Your task to perform on an android device: Go to network settings Image 0: 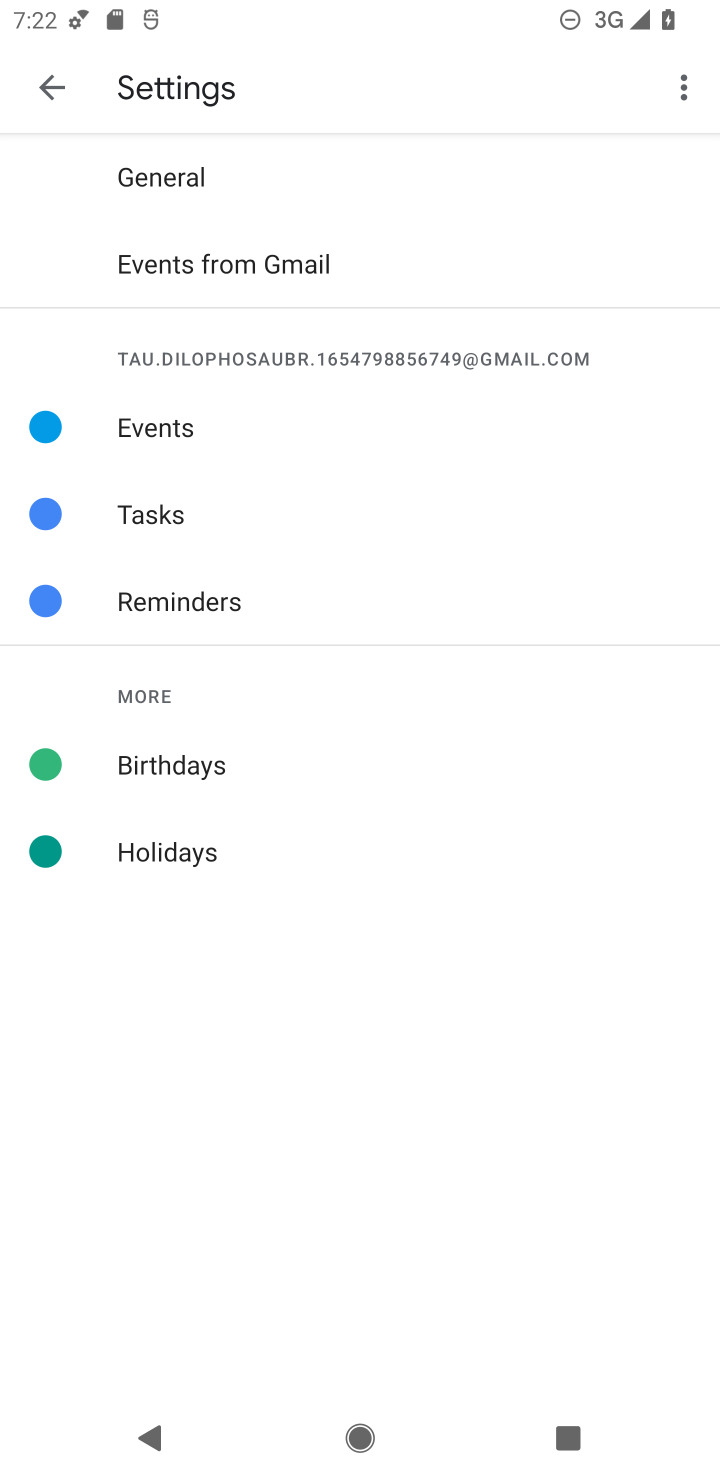
Step 0: press home button
Your task to perform on an android device: Go to network settings Image 1: 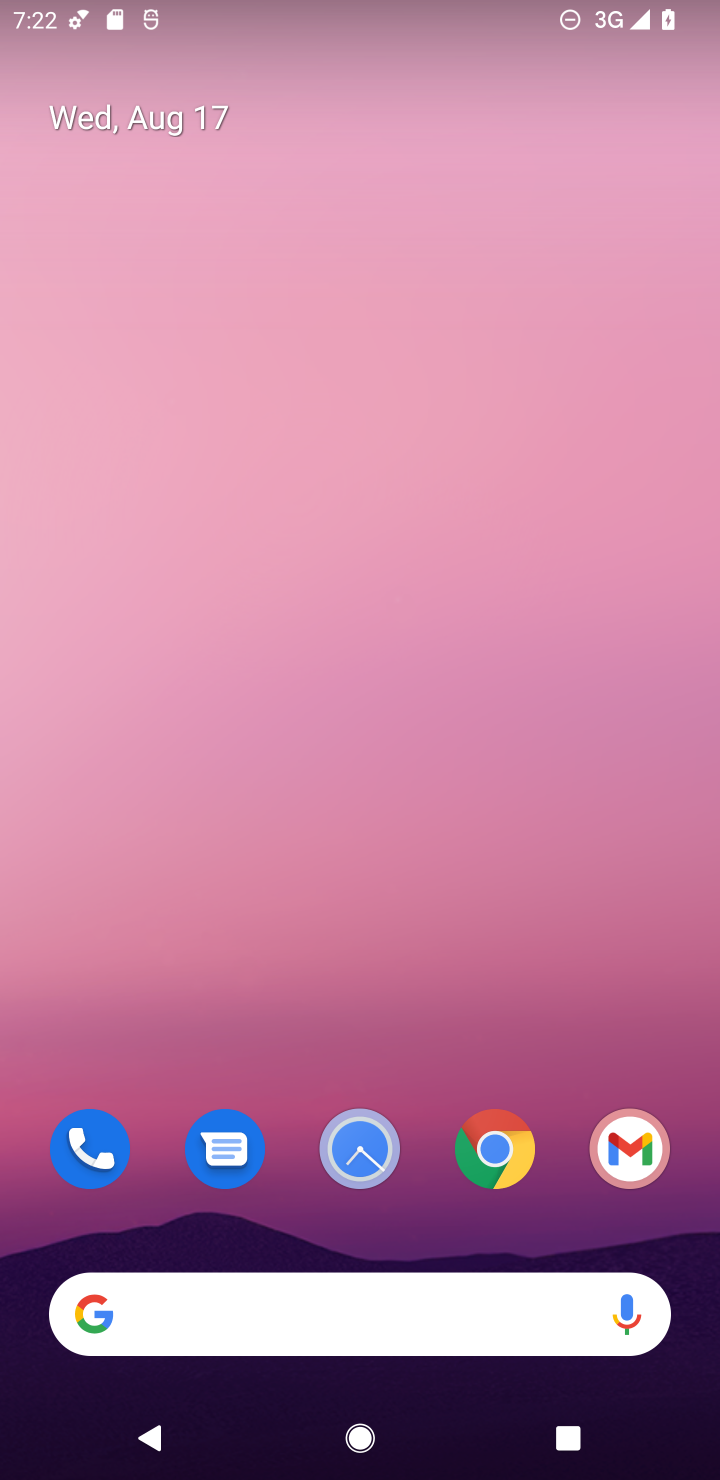
Step 1: drag from (386, 1075) to (364, 174)
Your task to perform on an android device: Go to network settings Image 2: 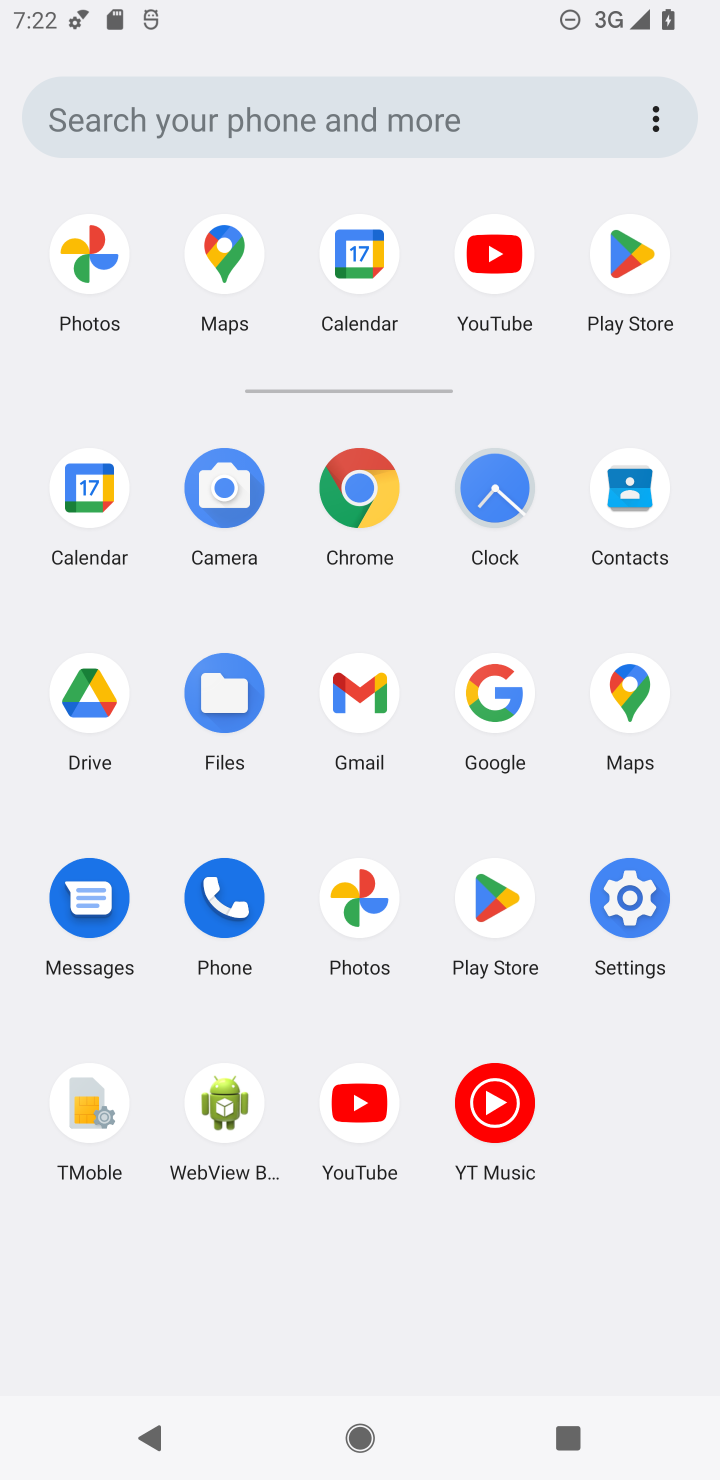
Step 2: click (631, 902)
Your task to perform on an android device: Go to network settings Image 3: 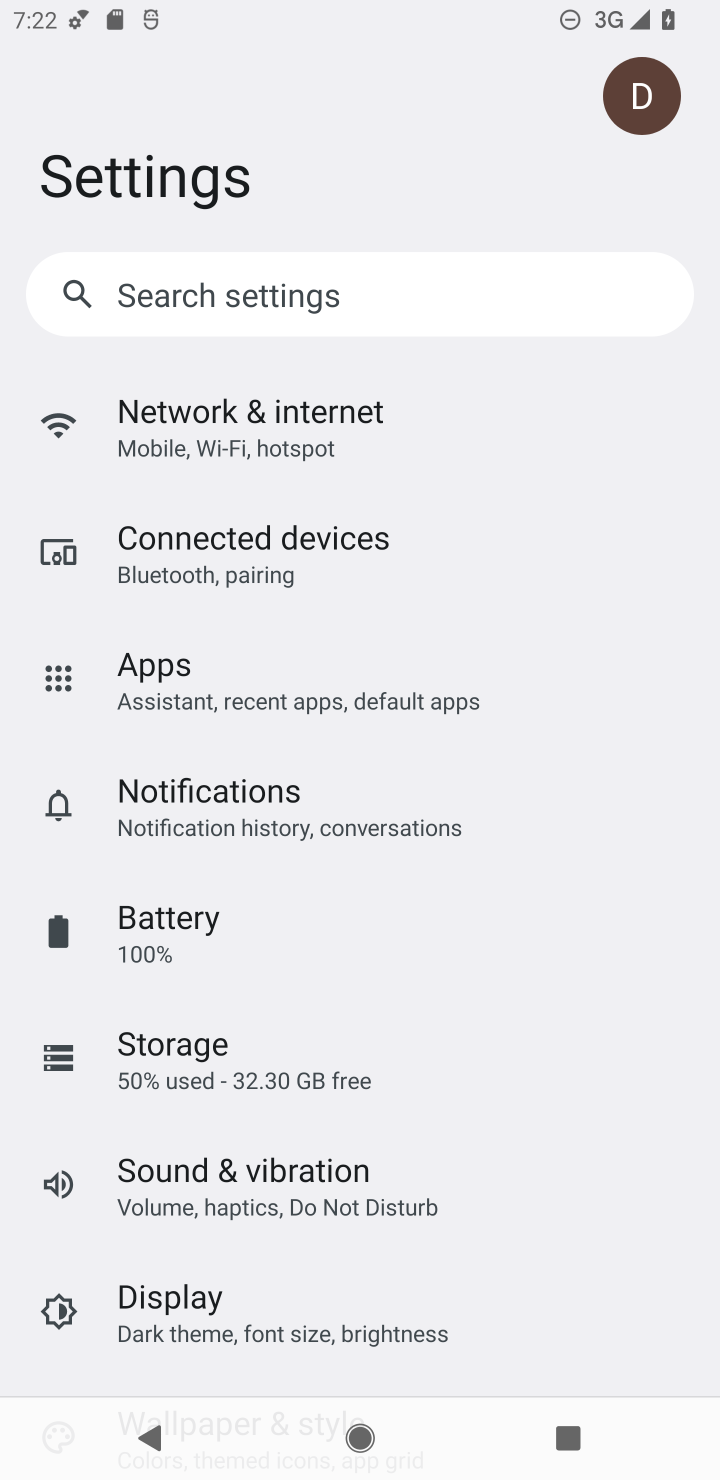
Step 3: click (244, 388)
Your task to perform on an android device: Go to network settings Image 4: 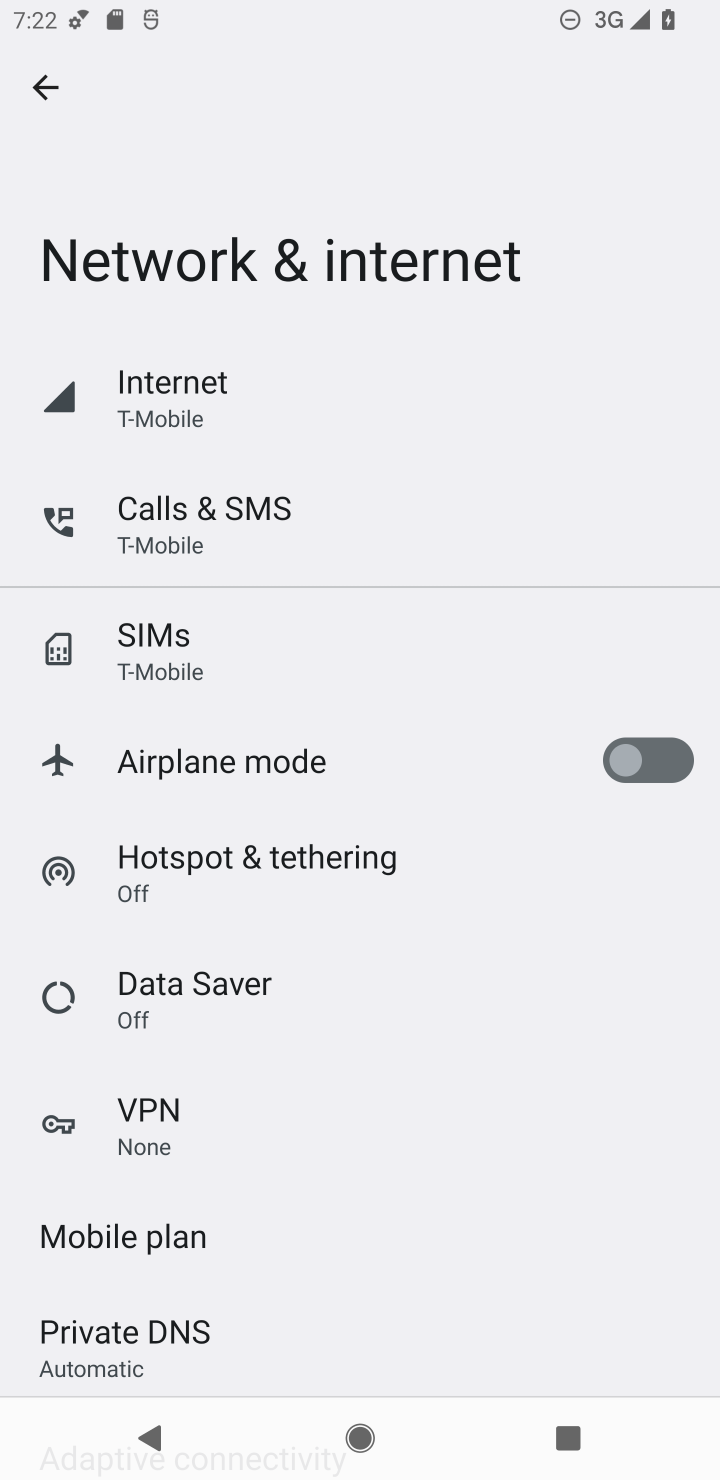
Step 4: task complete